Your task to perform on an android device: Do I have any events tomorrow? Image 0: 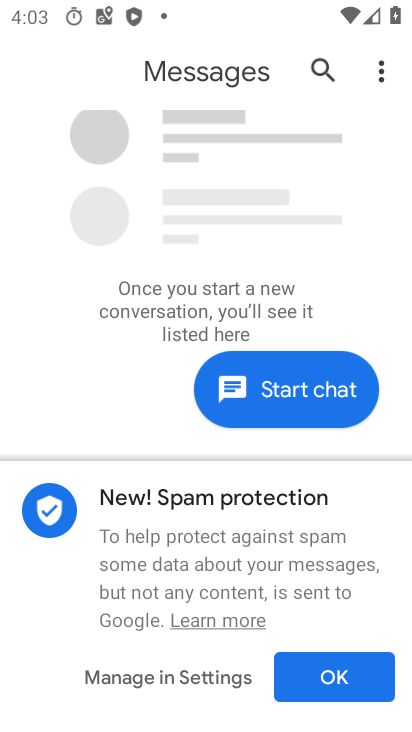
Step 0: press home button
Your task to perform on an android device: Do I have any events tomorrow? Image 1: 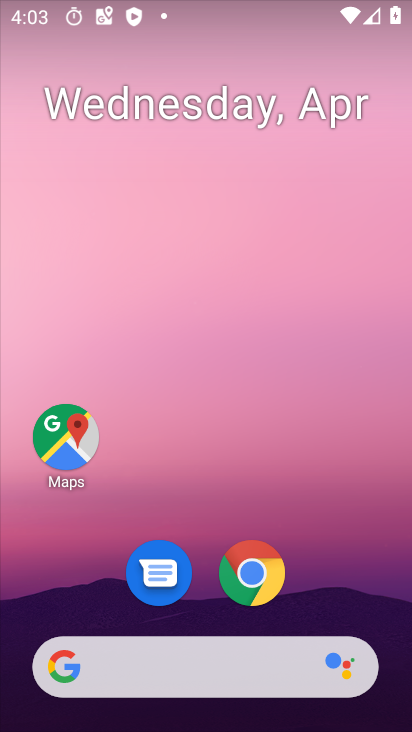
Step 1: drag from (375, 549) to (381, 102)
Your task to perform on an android device: Do I have any events tomorrow? Image 2: 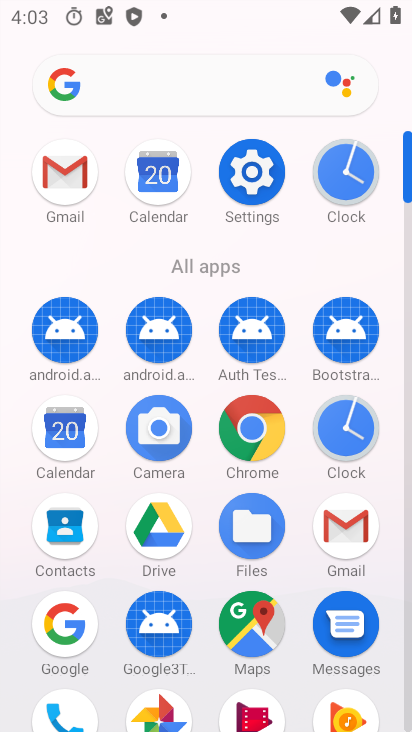
Step 2: click (347, 440)
Your task to perform on an android device: Do I have any events tomorrow? Image 3: 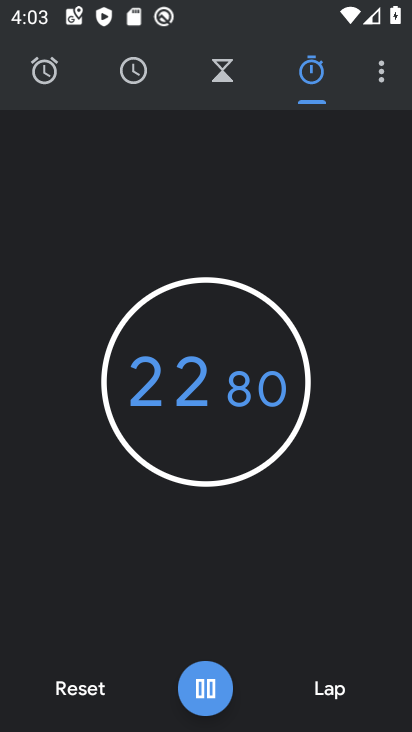
Step 3: press home button
Your task to perform on an android device: Do I have any events tomorrow? Image 4: 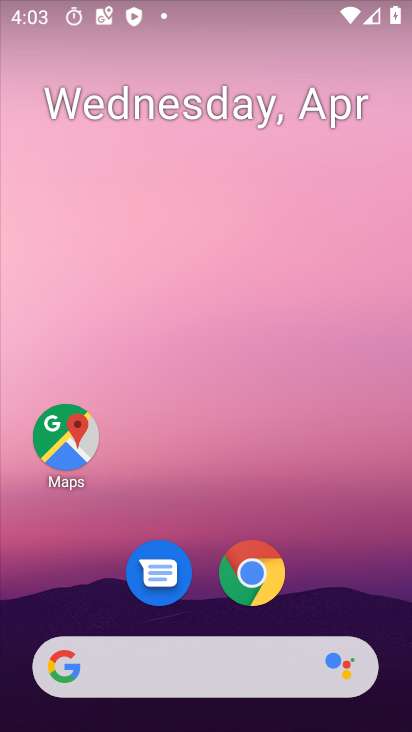
Step 4: drag from (350, 111) to (338, 69)
Your task to perform on an android device: Do I have any events tomorrow? Image 5: 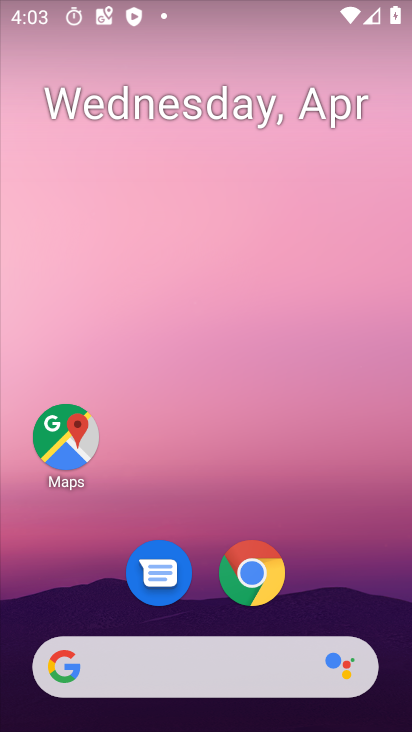
Step 5: click (325, 63)
Your task to perform on an android device: Do I have any events tomorrow? Image 6: 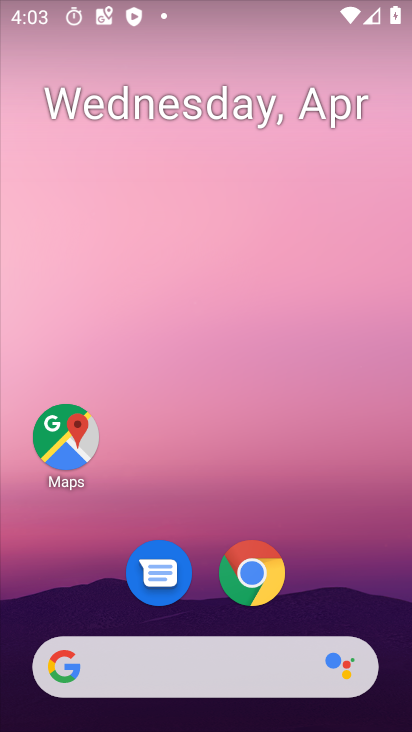
Step 6: drag from (328, 237) to (326, 84)
Your task to perform on an android device: Do I have any events tomorrow? Image 7: 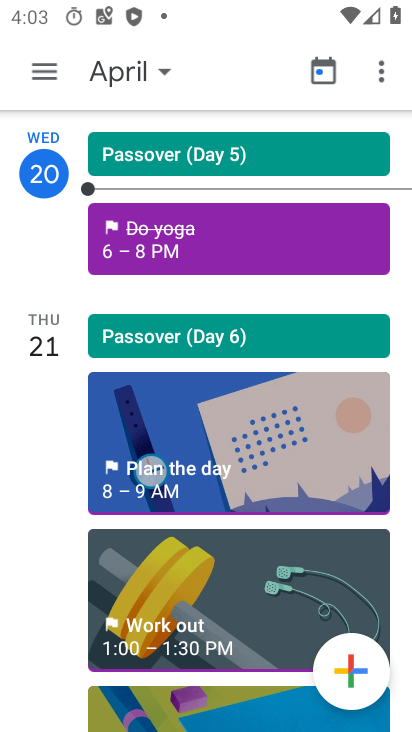
Step 7: click (164, 74)
Your task to perform on an android device: Do I have any events tomorrow? Image 8: 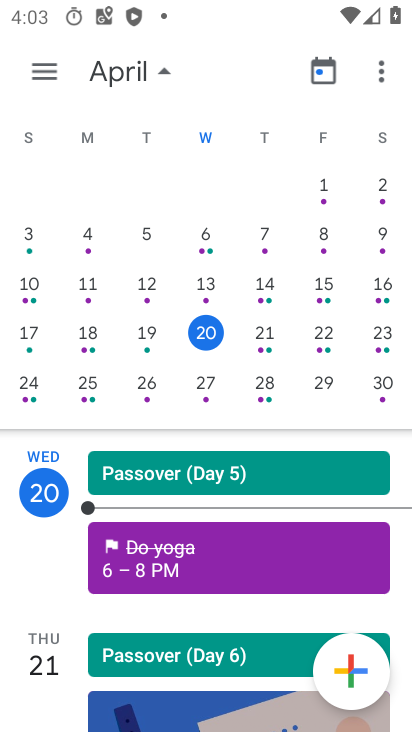
Step 8: click (261, 325)
Your task to perform on an android device: Do I have any events tomorrow? Image 9: 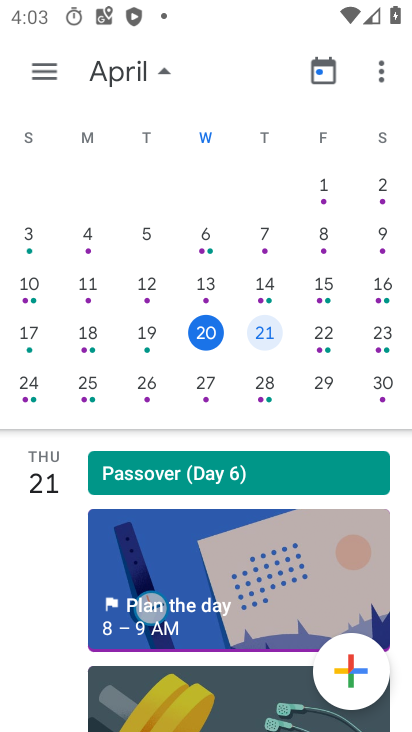
Step 9: task complete